Your task to perform on an android device: Open Google Chrome Image 0: 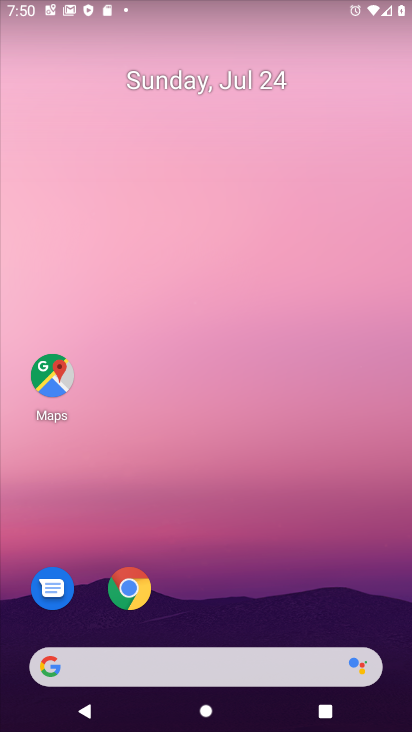
Step 0: drag from (220, 563) to (297, 9)
Your task to perform on an android device: Open Google Chrome Image 1: 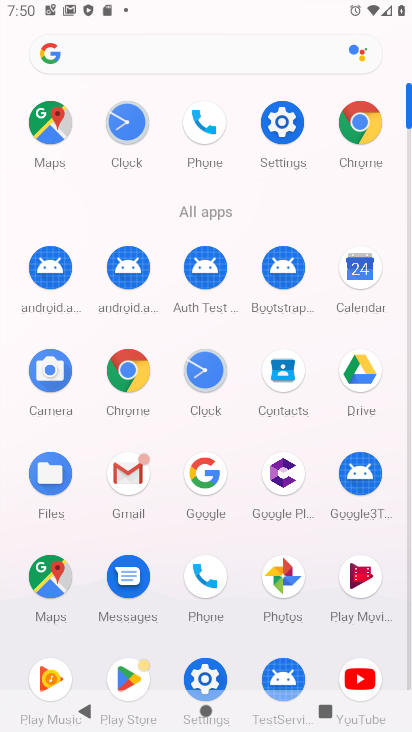
Step 1: click (361, 130)
Your task to perform on an android device: Open Google Chrome Image 2: 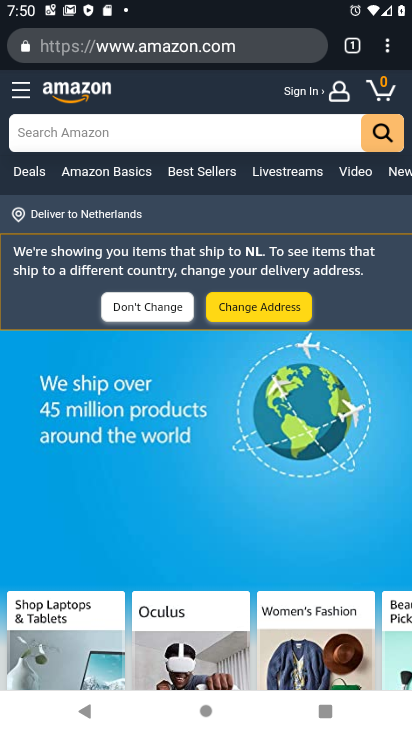
Step 2: task complete